Your task to perform on an android device: See recent photos Image 0: 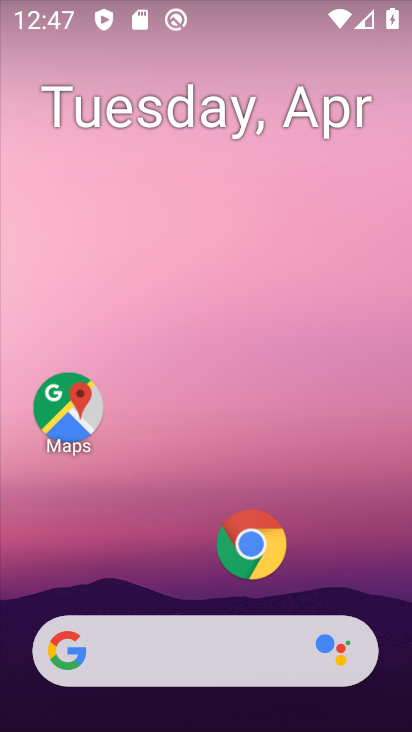
Step 0: drag from (351, 586) to (342, 179)
Your task to perform on an android device: See recent photos Image 1: 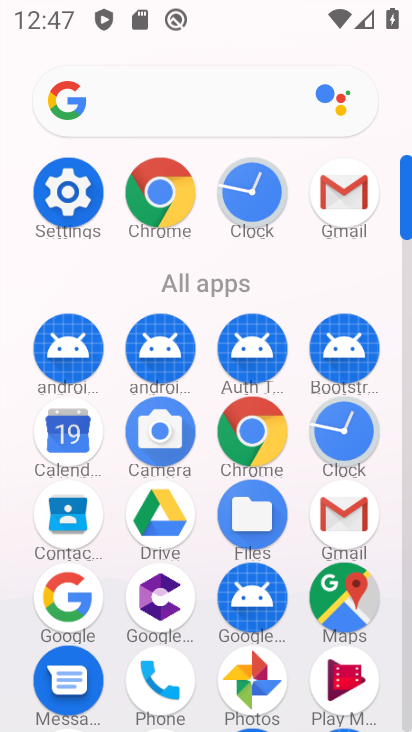
Step 1: click (242, 668)
Your task to perform on an android device: See recent photos Image 2: 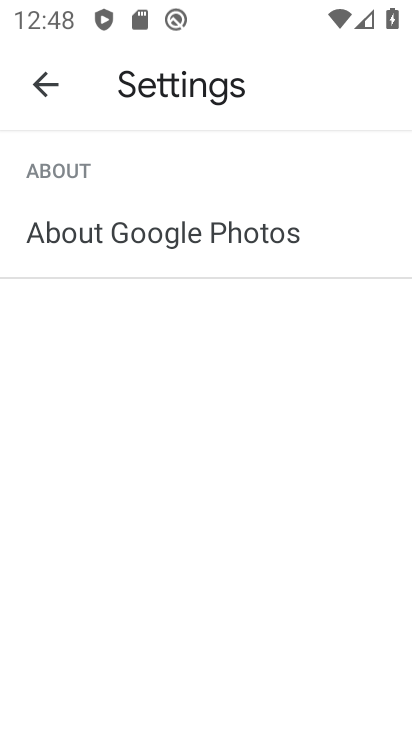
Step 2: click (52, 99)
Your task to perform on an android device: See recent photos Image 3: 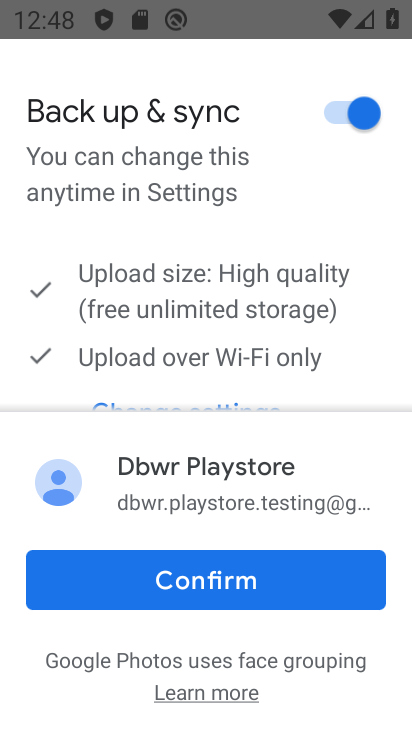
Step 3: click (212, 574)
Your task to perform on an android device: See recent photos Image 4: 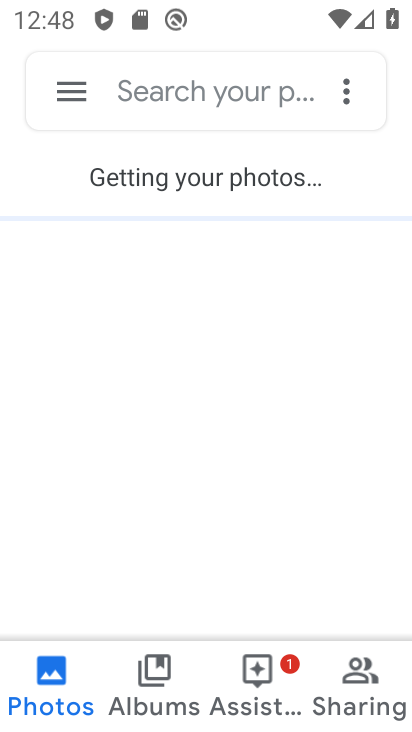
Step 4: click (156, 679)
Your task to perform on an android device: See recent photos Image 5: 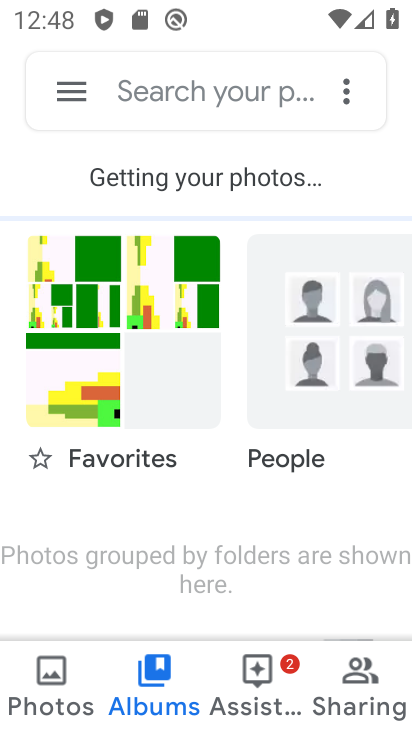
Step 5: click (47, 296)
Your task to perform on an android device: See recent photos Image 6: 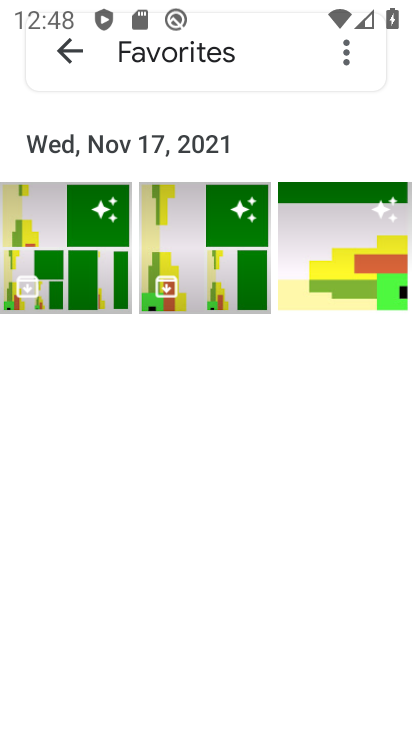
Step 6: click (99, 234)
Your task to perform on an android device: See recent photos Image 7: 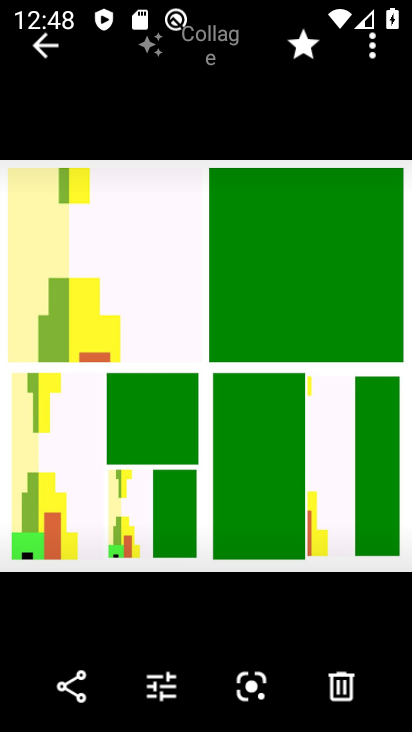
Step 7: task complete